Your task to perform on an android device: uninstall "Fetch Rewards" Image 0: 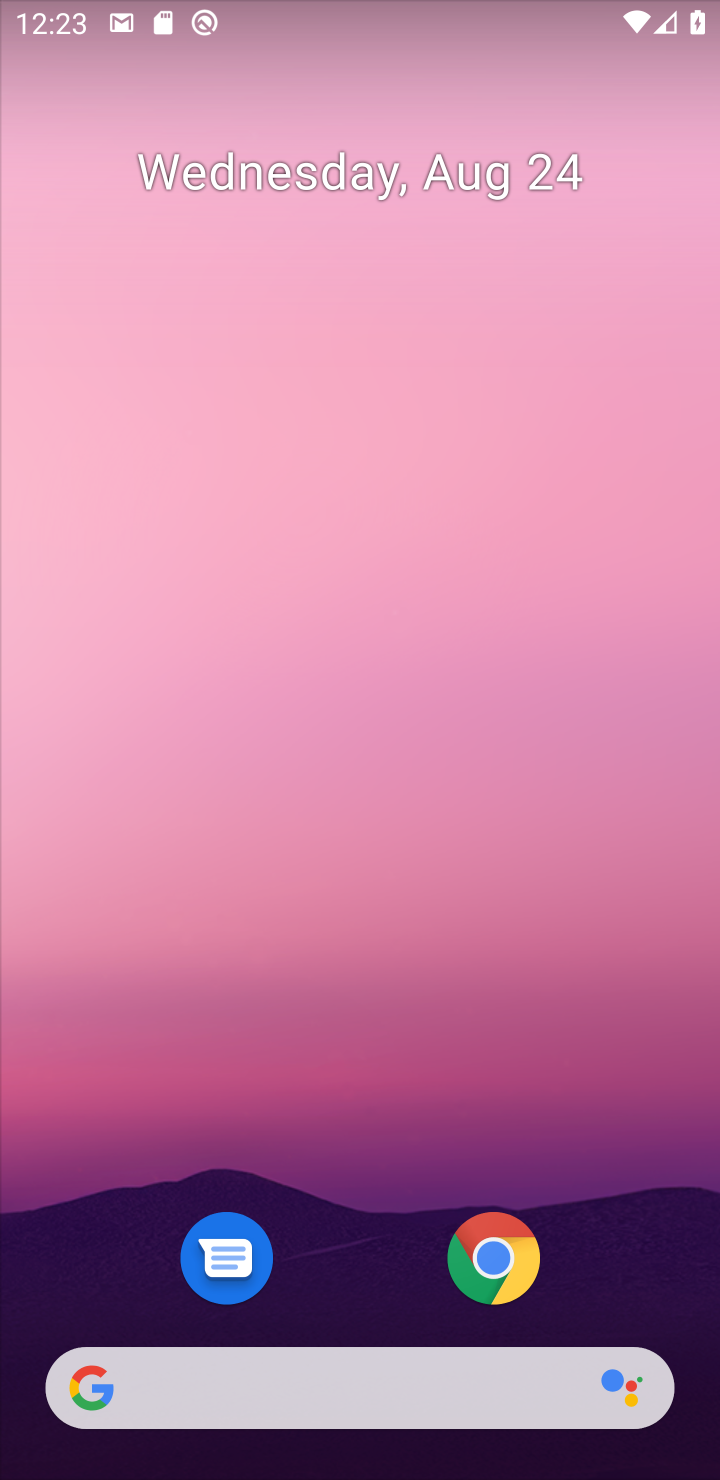
Step 0: drag from (301, 74) to (497, 32)
Your task to perform on an android device: uninstall "Fetch Rewards" Image 1: 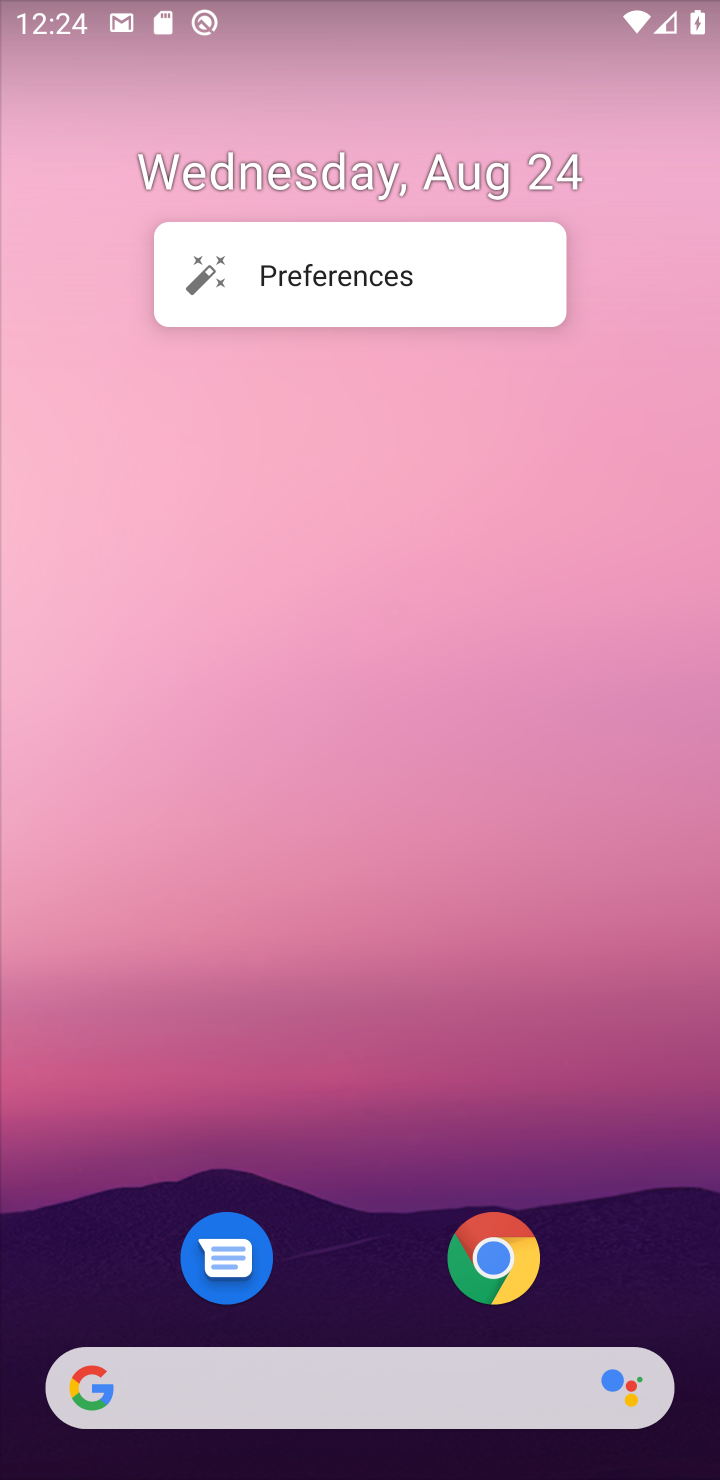
Step 1: drag from (316, 1301) to (374, 55)
Your task to perform on an android device: uninstall "Fetch Rewards" Image 2: 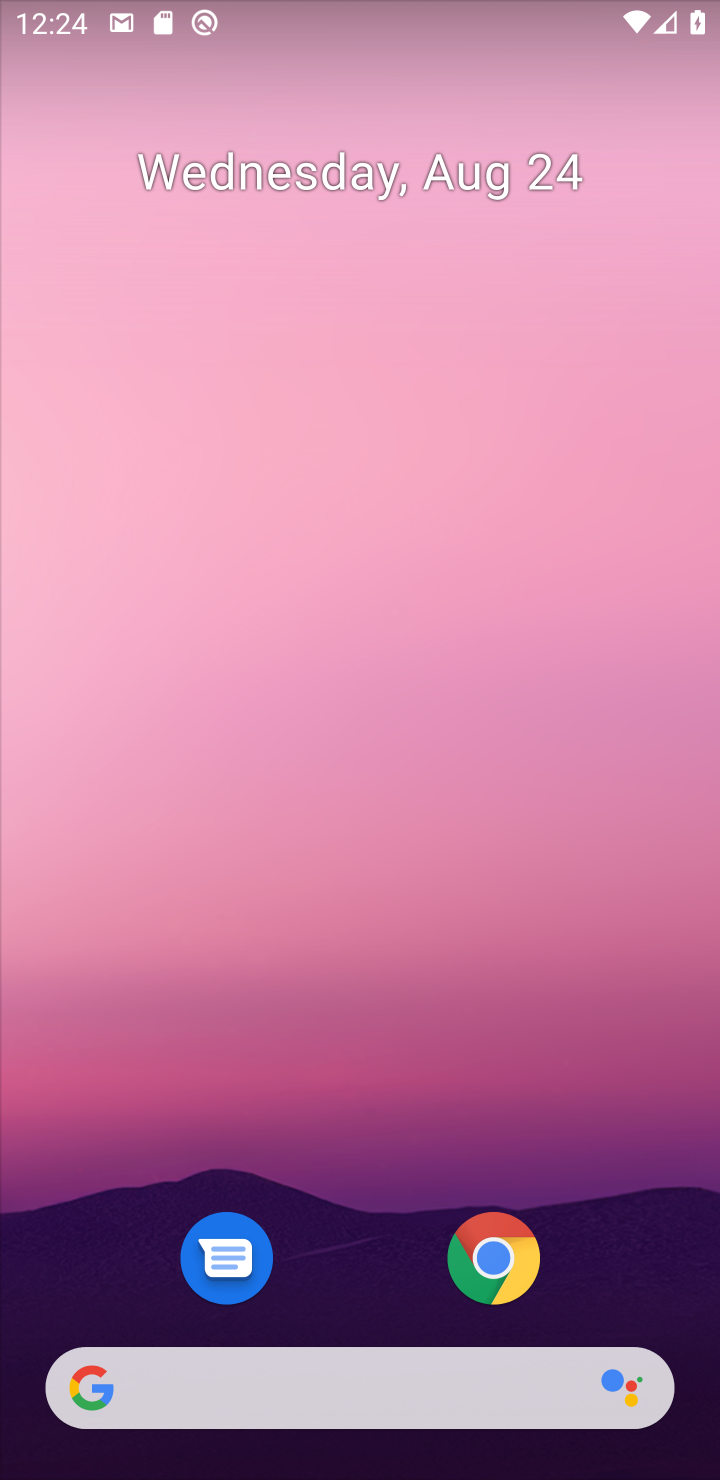
Step 2: drag from (385, 1244) to (630, 324)
Your task to perform on an android device: uninstall "Fetch Rewards" Image 3: 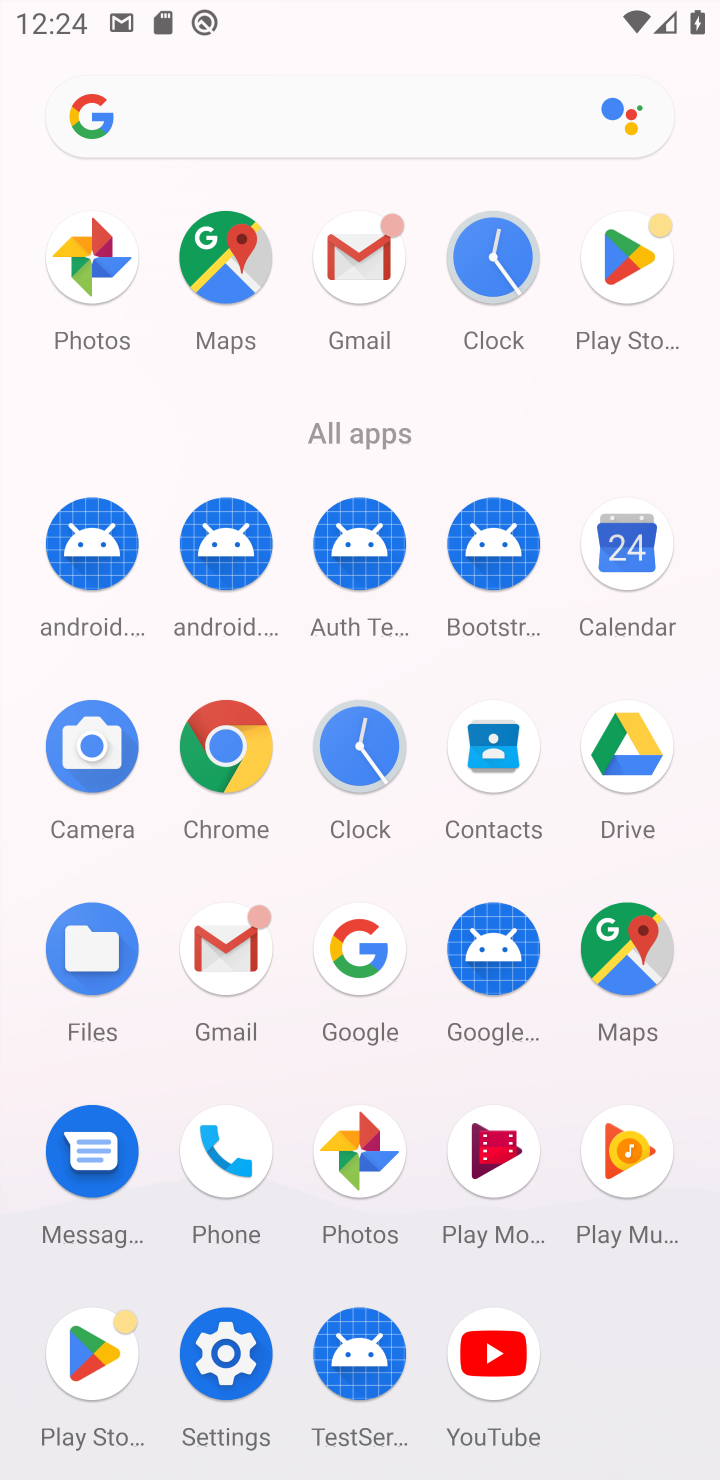
Step 3: click (629, 287)
Your task to perform on an android device: uninstall "Fetch Rewards" Image 4: 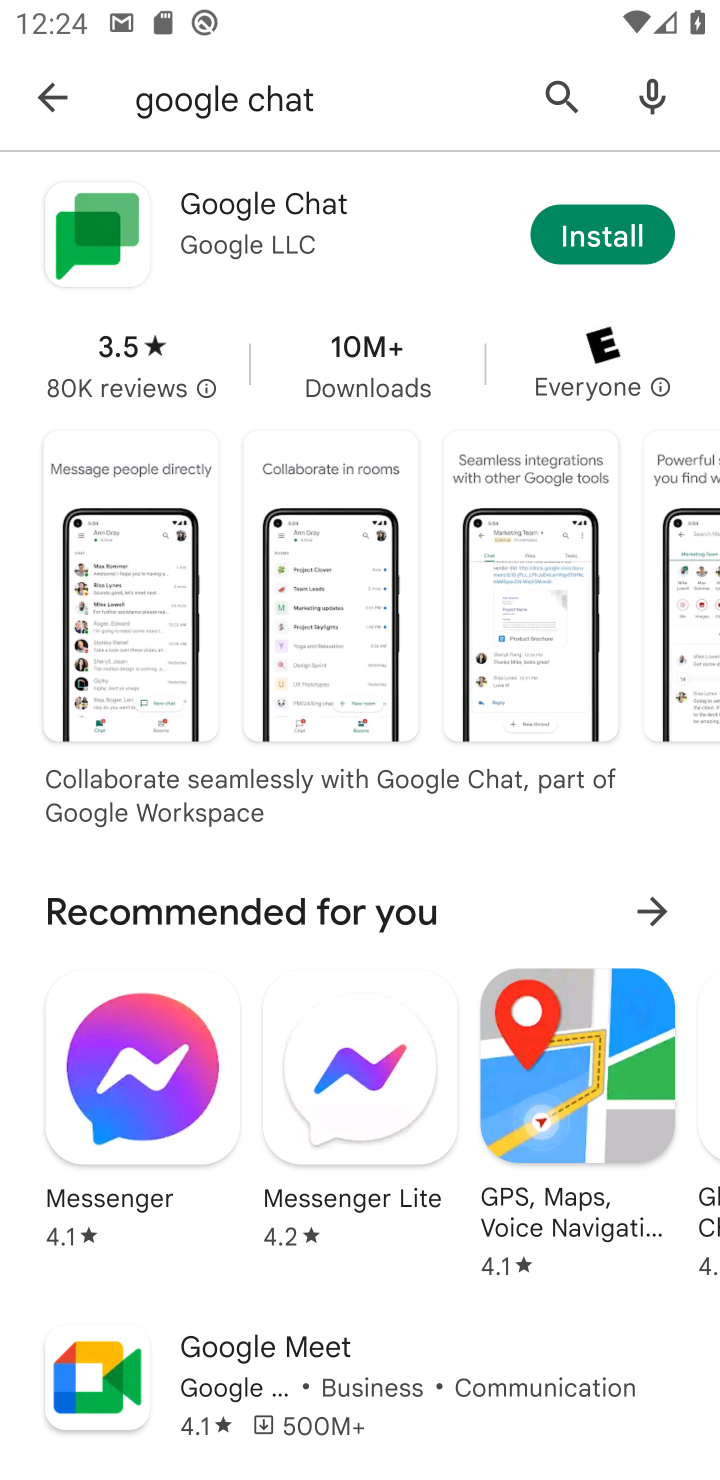
Step 4: click (242, 112)
Your task to perform on an android device: uninstall "Fetch Rewards" Image 5: 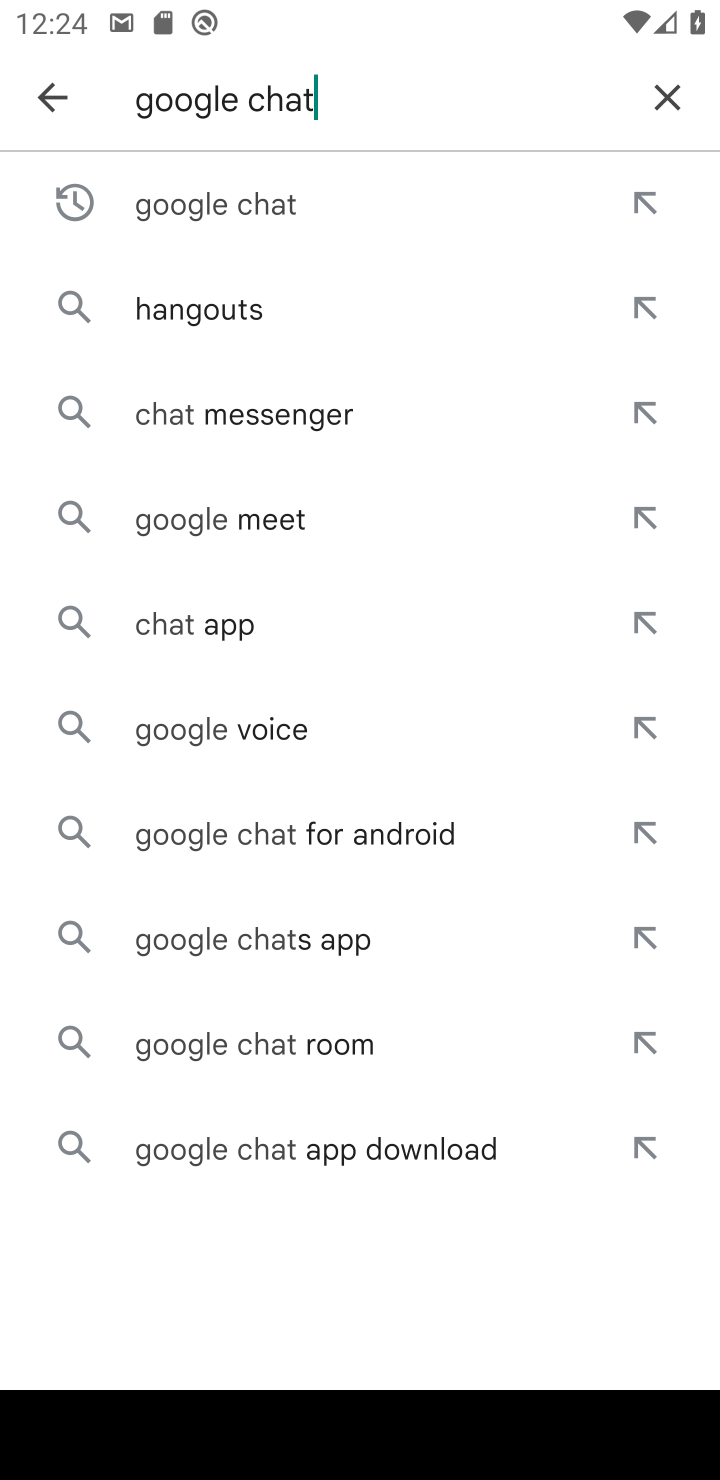
Step 5: click (677, 96)
Your task to perform on an android device: uninstall "Fetch Rewards" Image 6: 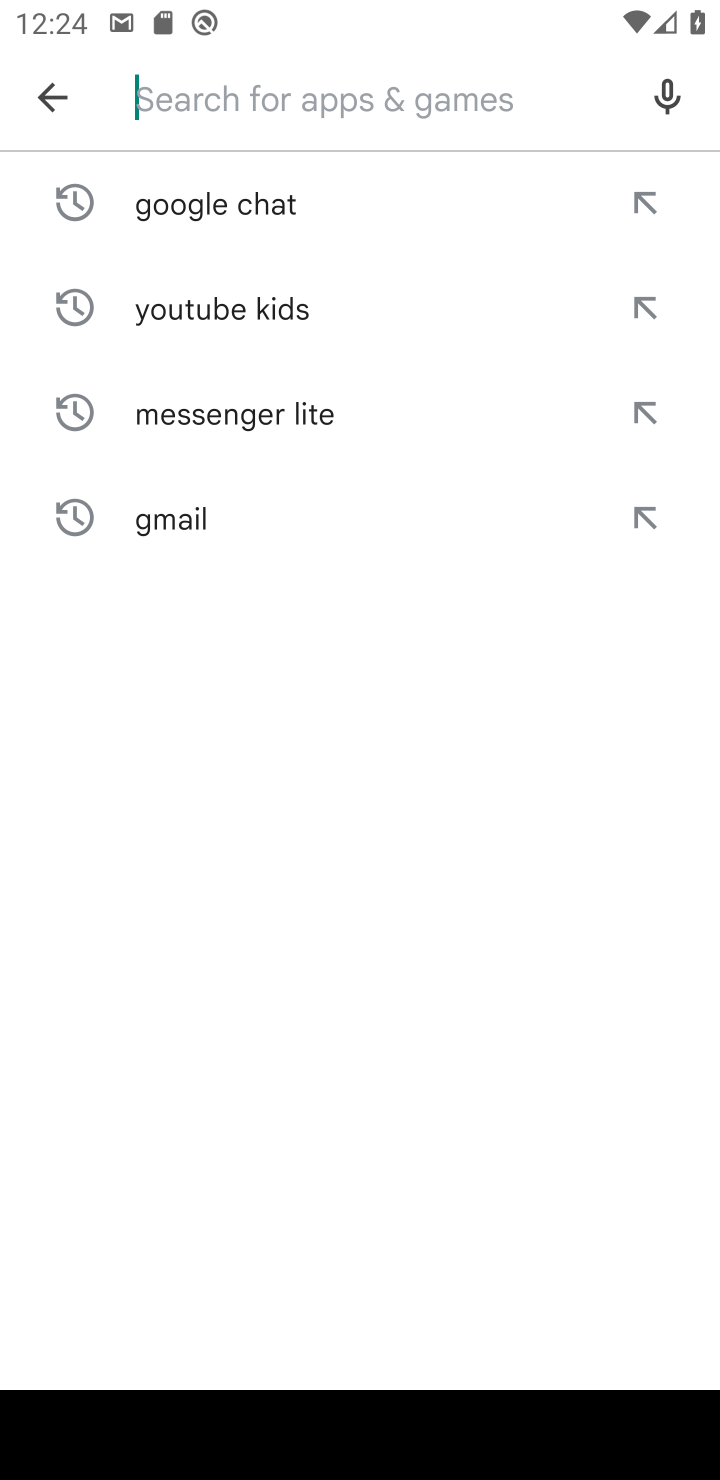
Step 6: type "fetch rewards"
Your task to perform on an android device: uninstall "Fetch Rewards" Image 7: 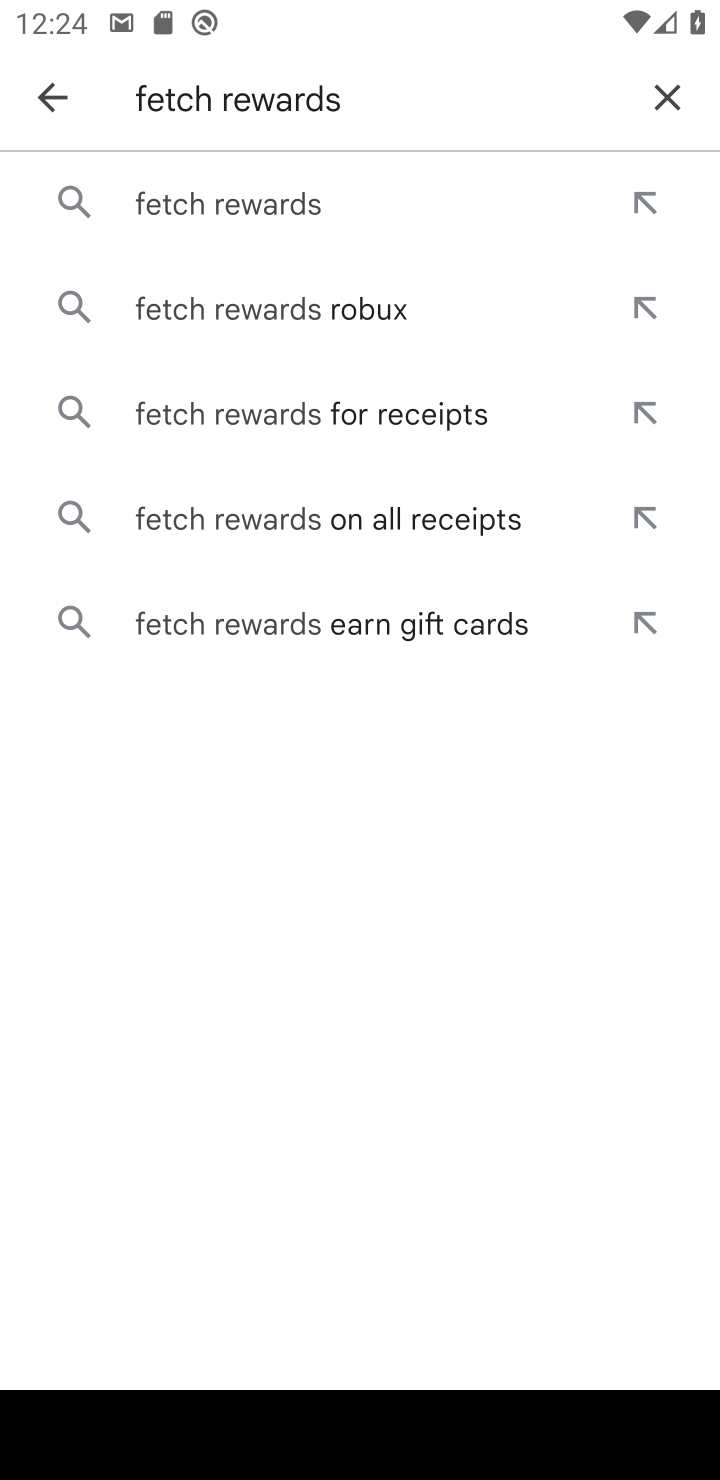
Step 7: click (342, 231)
Your task to perform on an android device: uninstall "Fetch Rewards" Image 8: 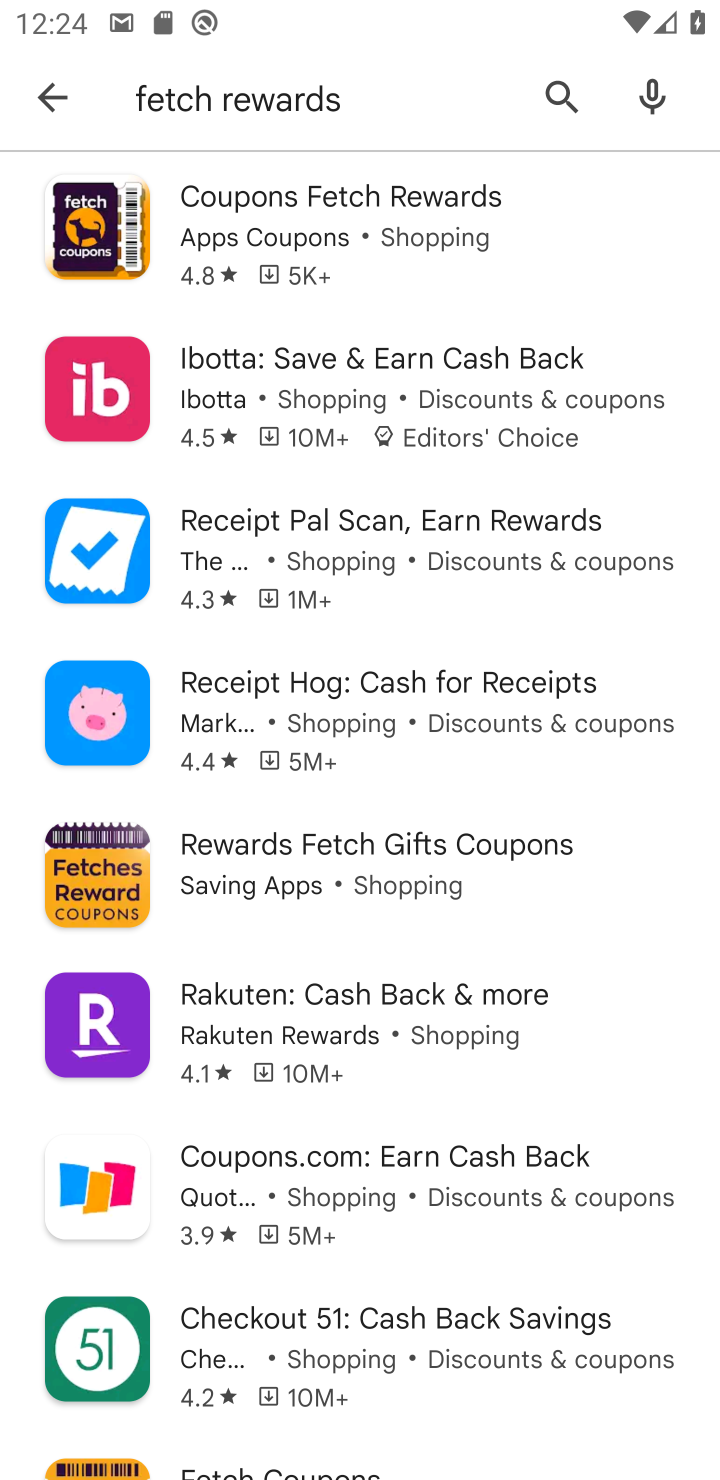
Step 8: task complete